Your task to perform on an android device: turn on showing notifications on the lock screen Image 0: 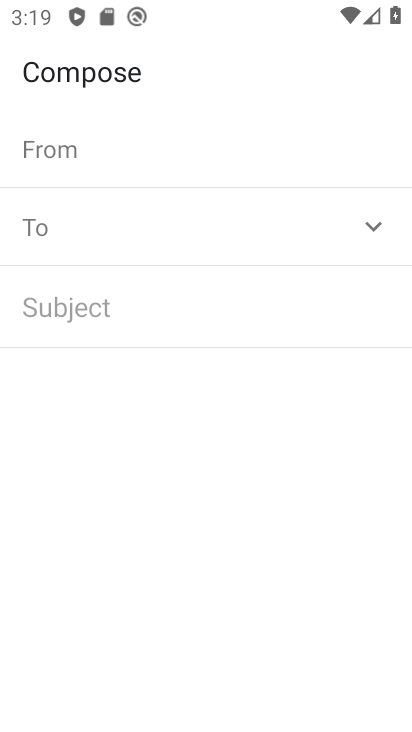
Step 0: drag from (384, 577) to (368, 347)
Your task to perform on an android device: turn on showing notifications on the lock screen Image 1: 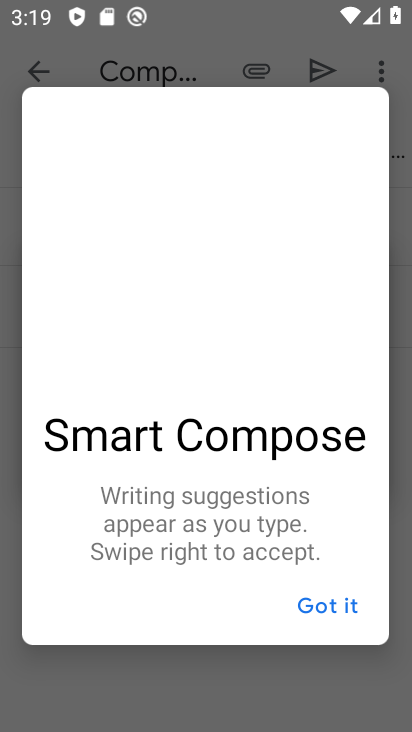
Step 1: press home button
Your task to perform on an android device: turn on showing notifications on the lock screen Image 2: 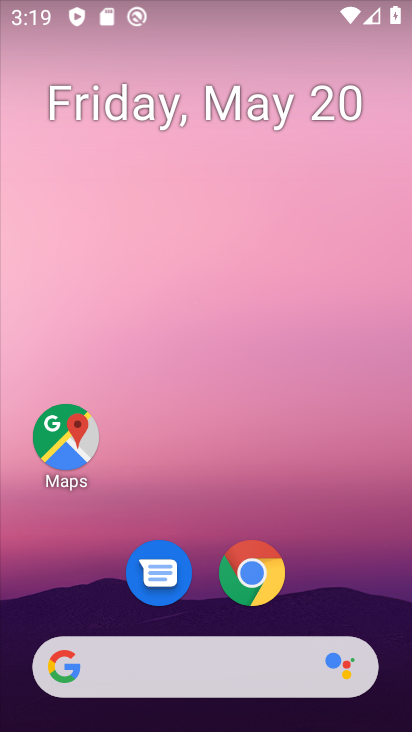
Step 2: drag from (363, 585) to (316, 161)
Your task to perform on an android device: turn on showing notifications on the lock screen Image 3: 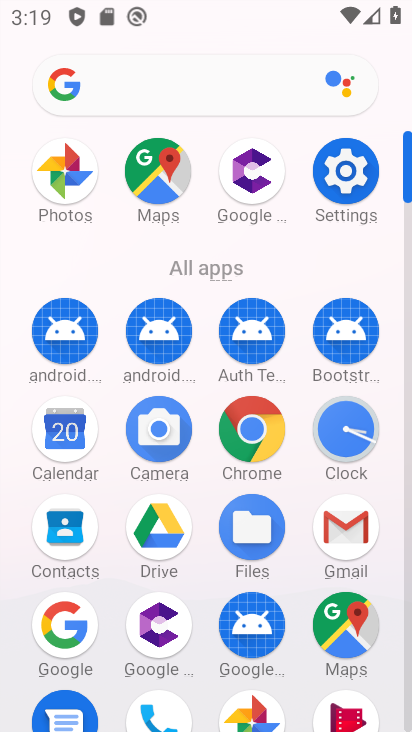
Step 3: click (352, 205)
Your task to perform on an android device: turn on showing notifications on the lock screen Image 4: 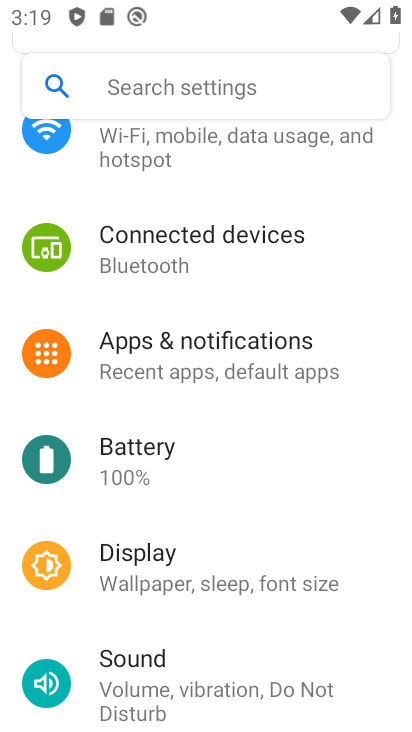
Step 4: click (175, 354)
Your task to perform on an android device: turn on showing notifications on the lock screen Image 5: 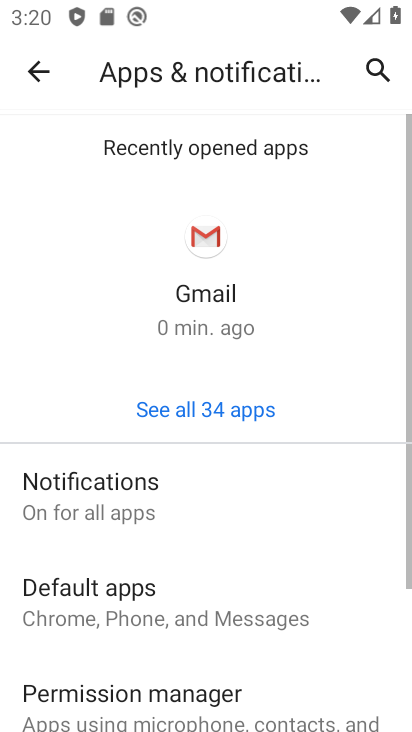
Step 5: click (143, 492)
Your task to perform on an android device: turn on showing notifications on the lock screen Image 6: 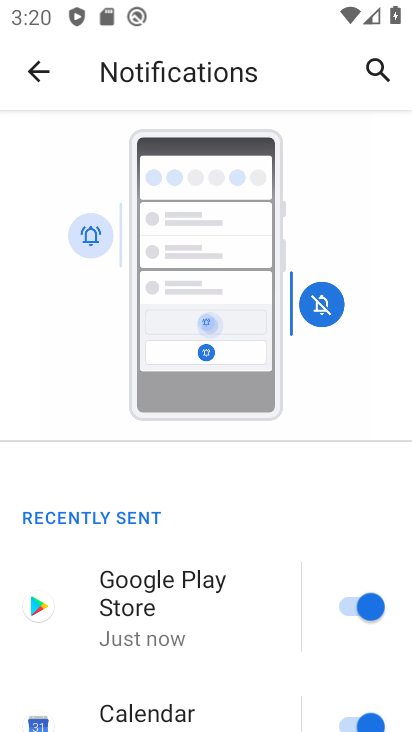
Step 6: drag from (232, 682) to (239, 287)
Your task to perform on an android device: turn on showing notifications on the lock screen Image 7: 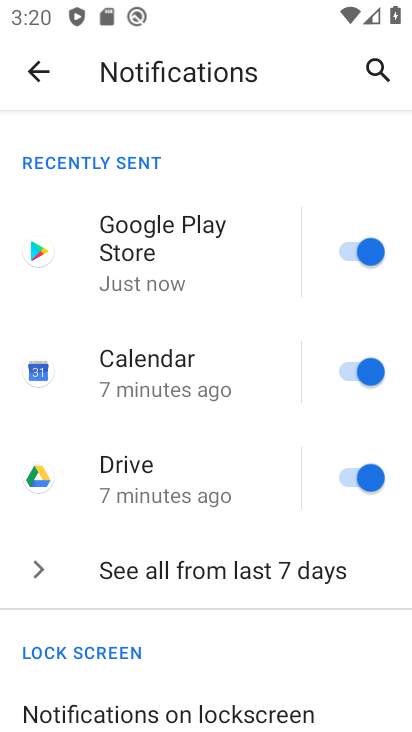
Step 7: drag from (217, 687) to (253, 288)
Your task to perform on an android device: turn on showing notifications on the lock screen Image 8: 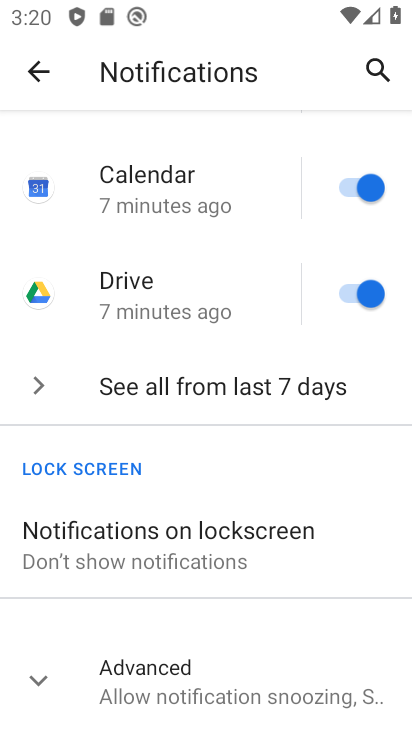
Step 8: click (208, 539)
Your task to perform on an android device: turn on showing notifications on the lock screen Image 9: 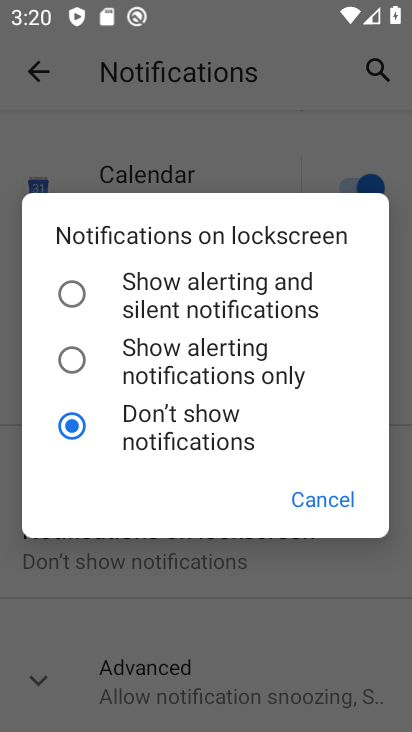
Step 9: click (68, 293)
Your task to perform on an android device: turn on showing notifications on the lock screen Image 10: 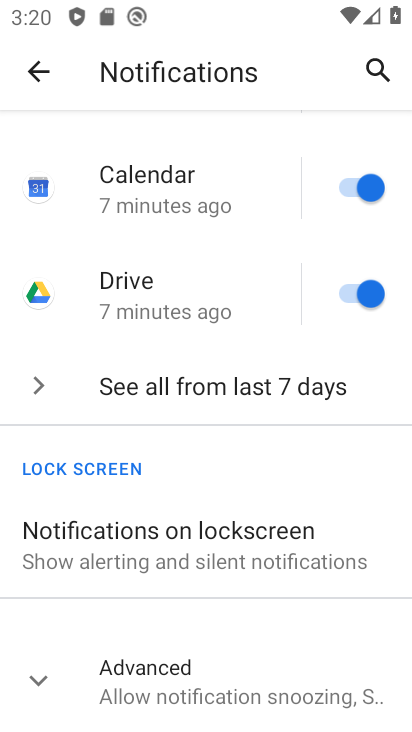
Step 10: task complete